Your task to perform on an android device: open a bookmark in the chrome app Image 0: 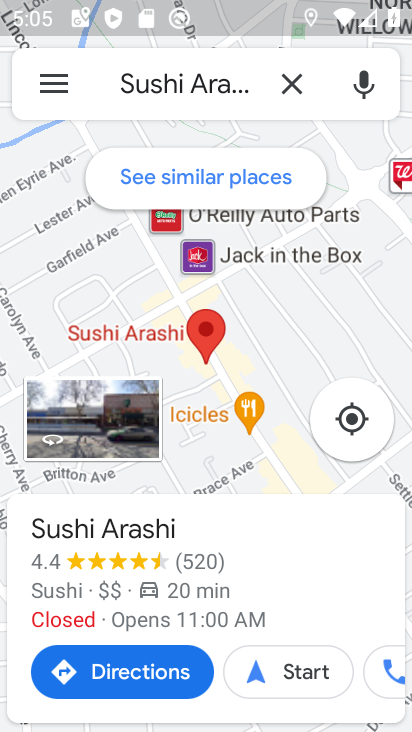
Step 0: press home button
Your task to perform on an android device: open a bookmark in the chrome app Image 1: 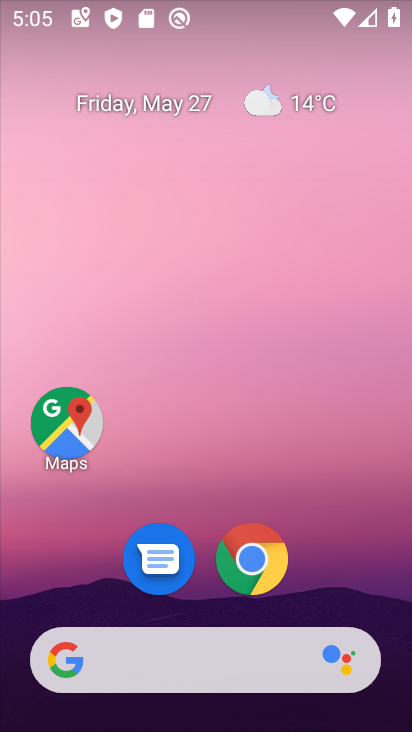
Step 1: drag from (254, 517) to (326, 179)
Your task to perform on an android device: open a bookmark in the chrome app Image 2: 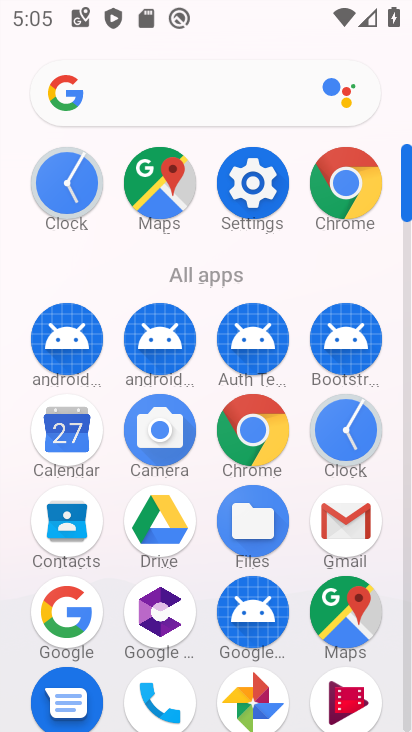
Step 2: click (339, 187)
Your task to perform on an android device: open a bookmark in the chrome app Image 3: 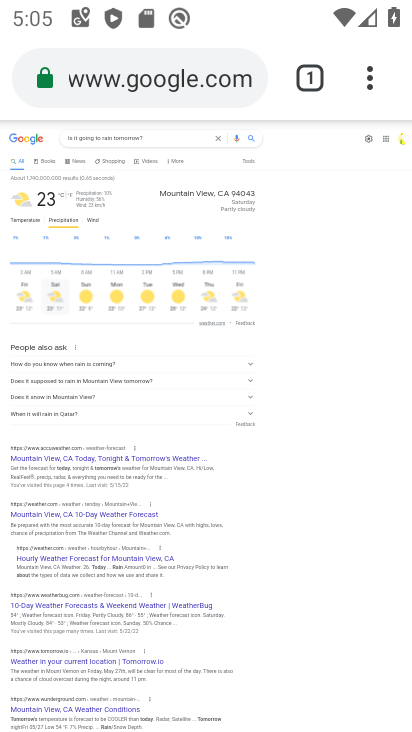
Step 3: task complete